Your task to perform on an android device: Open the web browser Image 0: 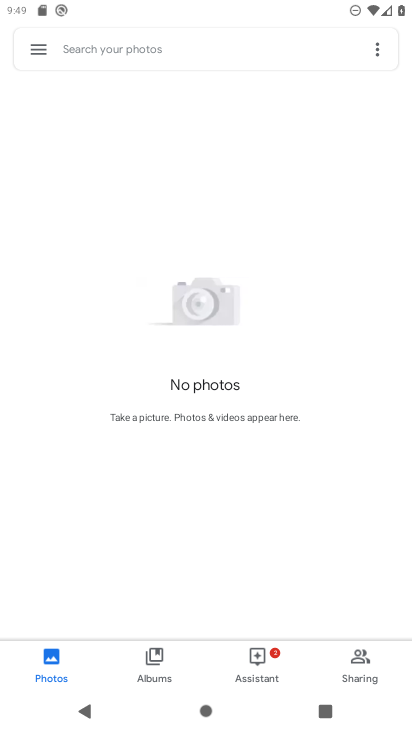
Step 0: press home button
Your task to perform on an android device: Open the web browser Image 1: 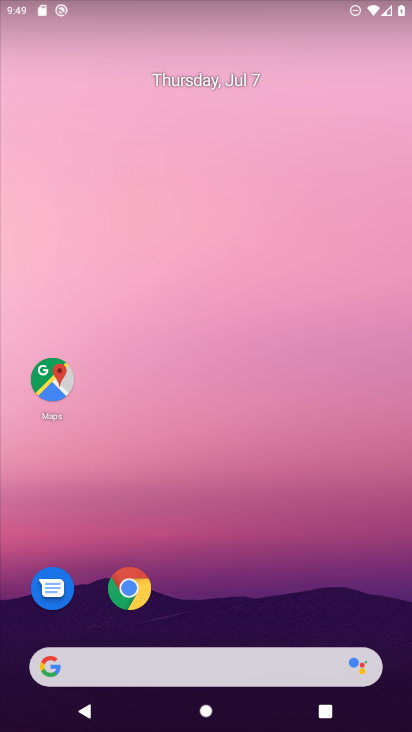
Step 1: click (126, 663)
Your task to perform on an android device: Open the web browser Image 2: 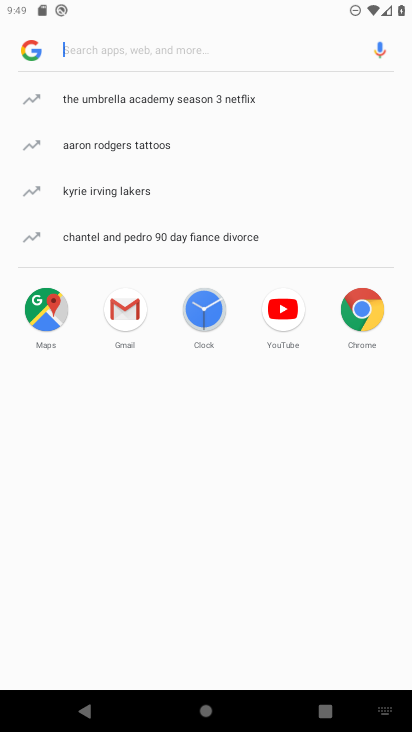
Step 2: task complete